Your task to perform on an android device: Open eBay Image 0: 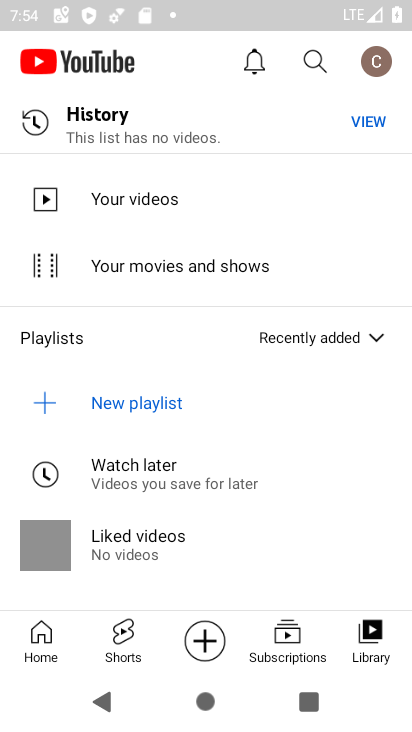
Step 0: press home button
Your task to perform on an android device: Open eBay Image 1: 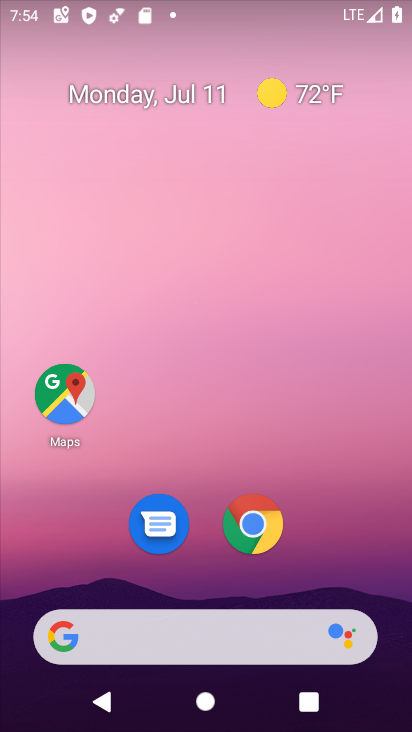
Step 1: click (210, 647)
Your task to perform on an android device: Open eBay Image 2: 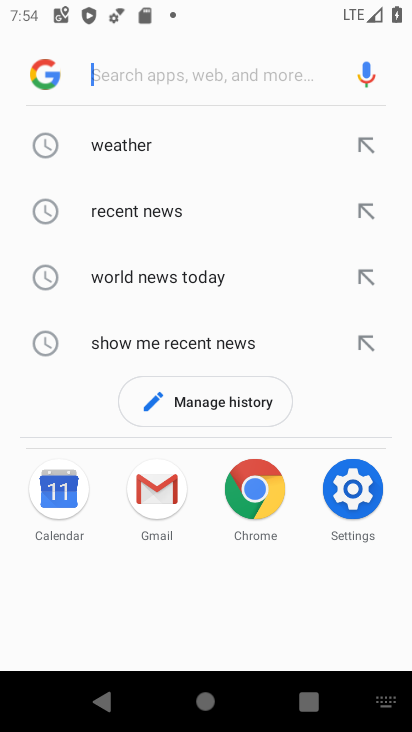
Step 2: type "ebay"
Your task to perform on an android device: Open eBay Image 3: 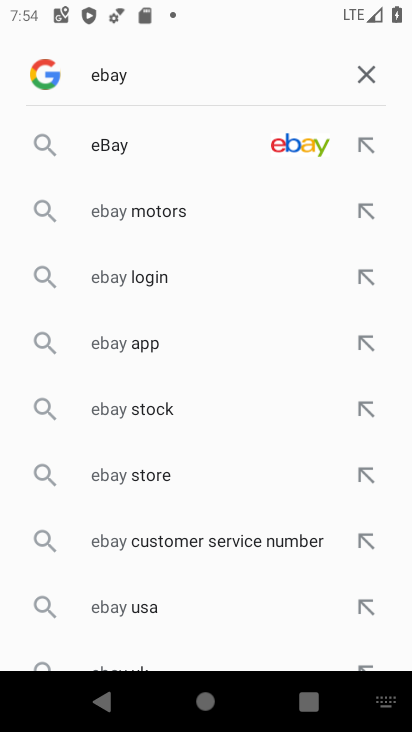
Step 3: click (296, 143)
Your task to perform on an android device: Open eBay Image 4: 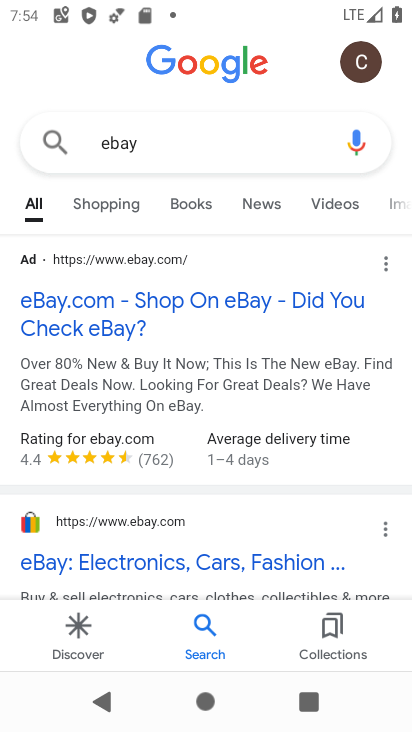
Step 4: click (95, 299)
Your task to perform on an android device: Open eBay Image 5: 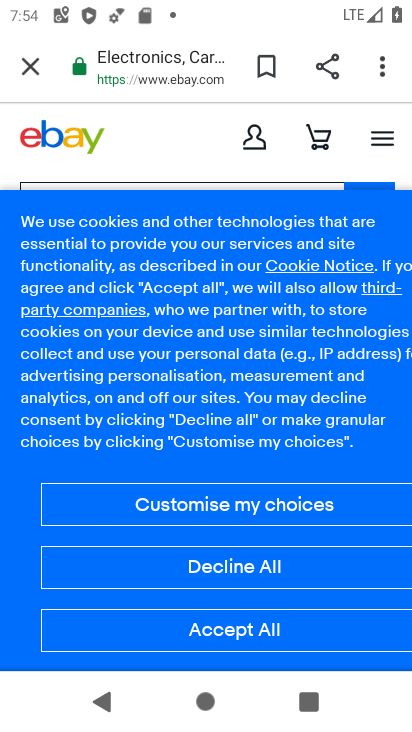
Step 5: click (258, 637)
Your task to perform on an android device: Open eBay Image 6: 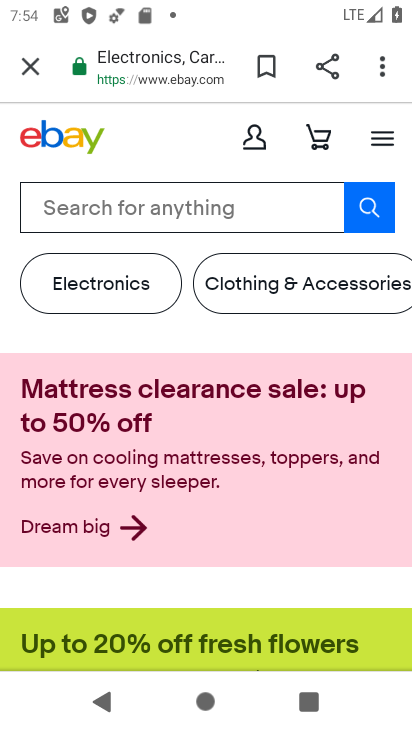
Step 6: task complete